Your task to perform on an android device: Open location settings Image 0: 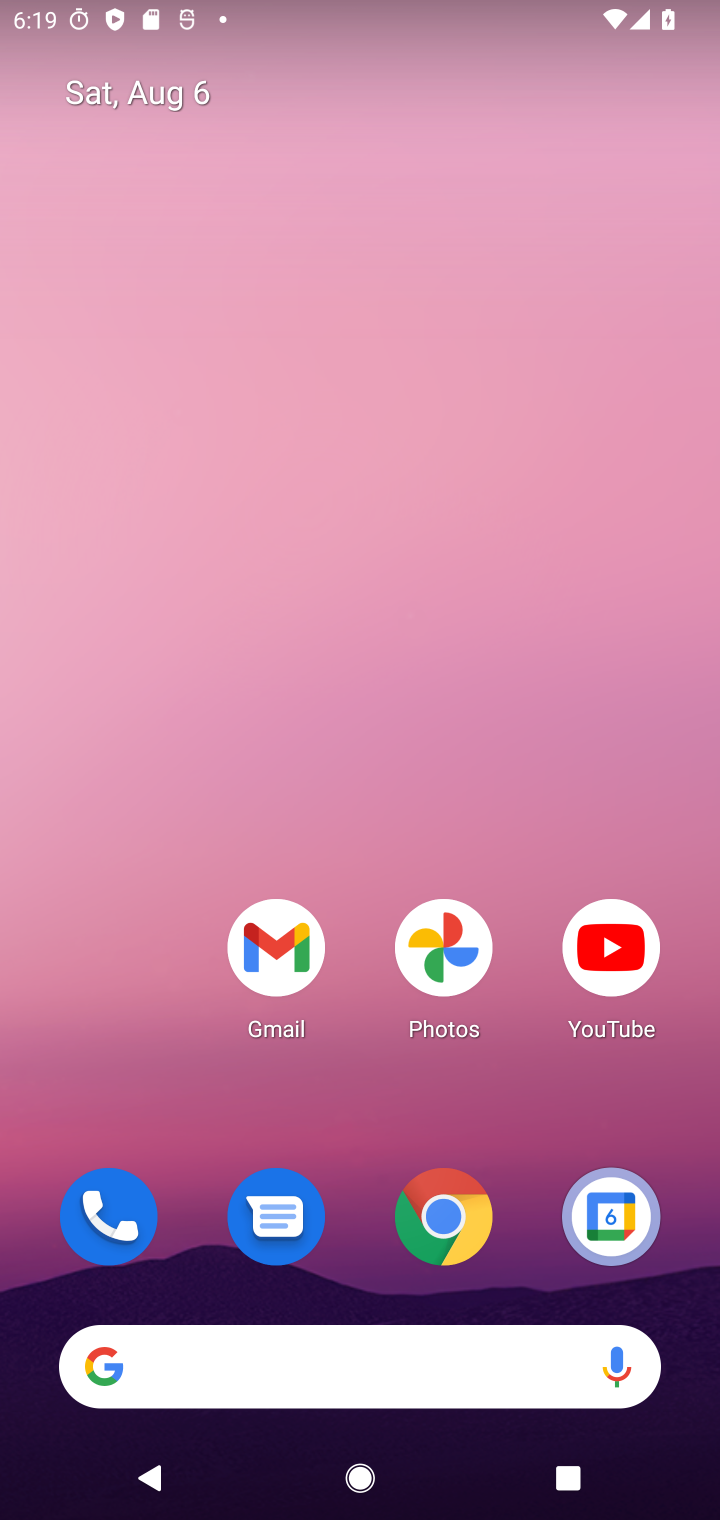
Step 0: drag from (394, 785) to (503, 348)
Your task to perform on an android device: Open location settings Image 1: 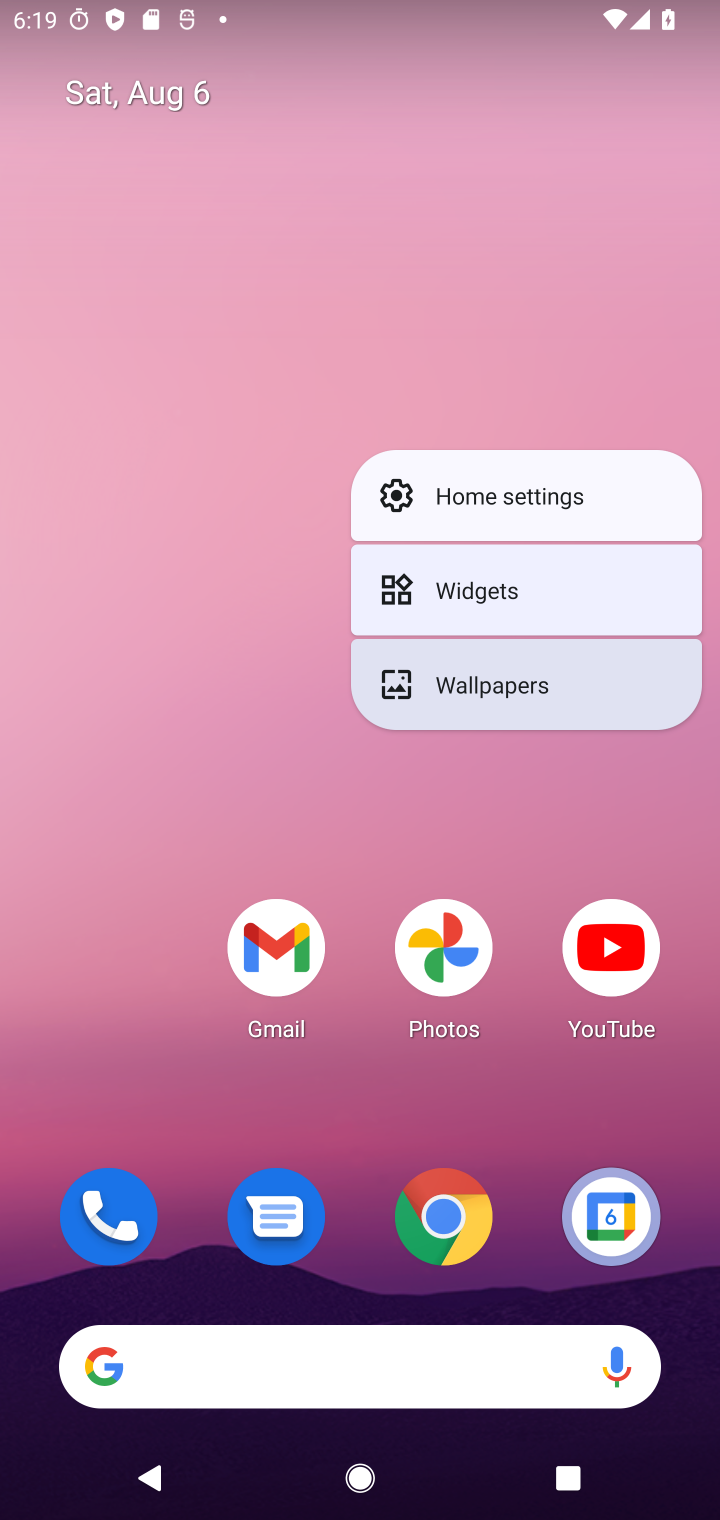
Step 1: click (224, 425)
Your task to perform on an android device: Open location settings Image 2: 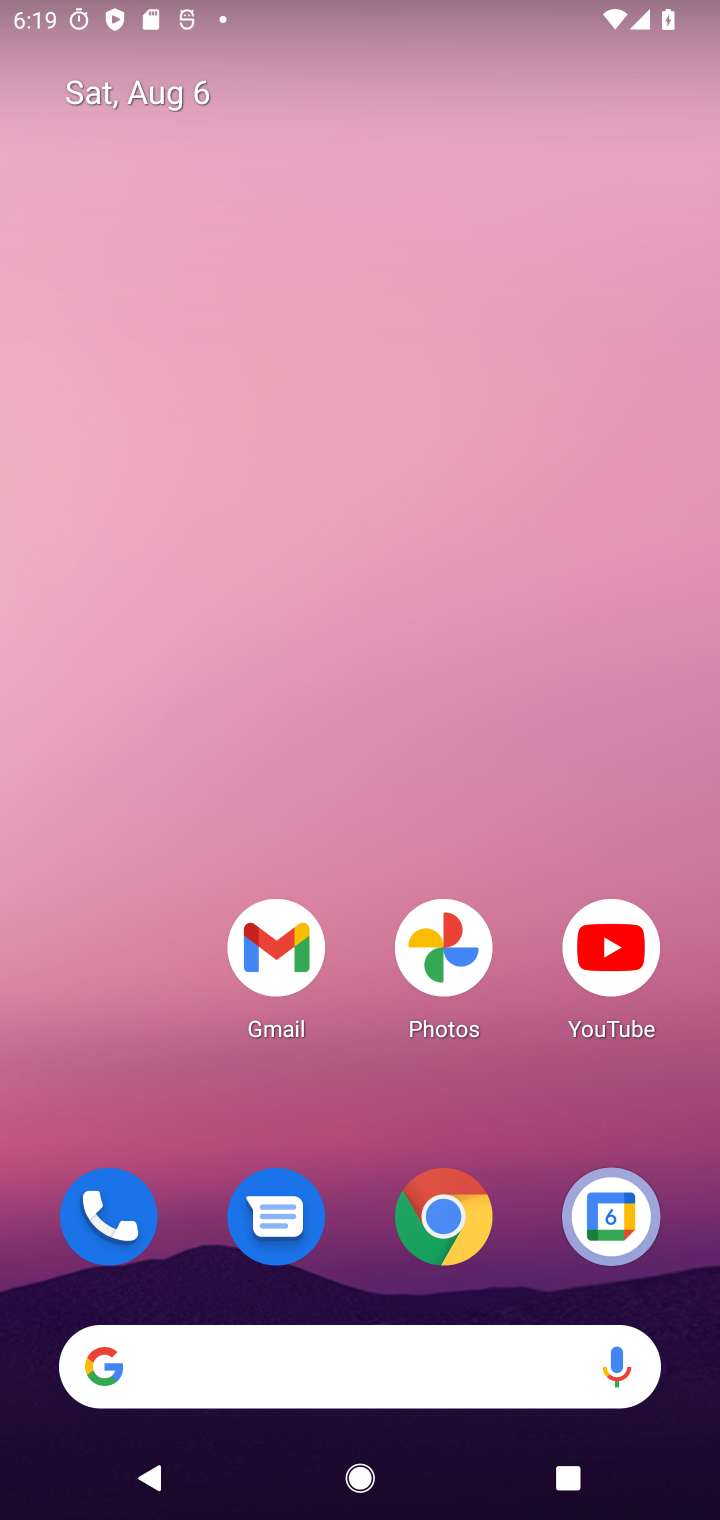
Step 2: click (290, 625)
Your task to perform on an android device: Open location settings Image 3: 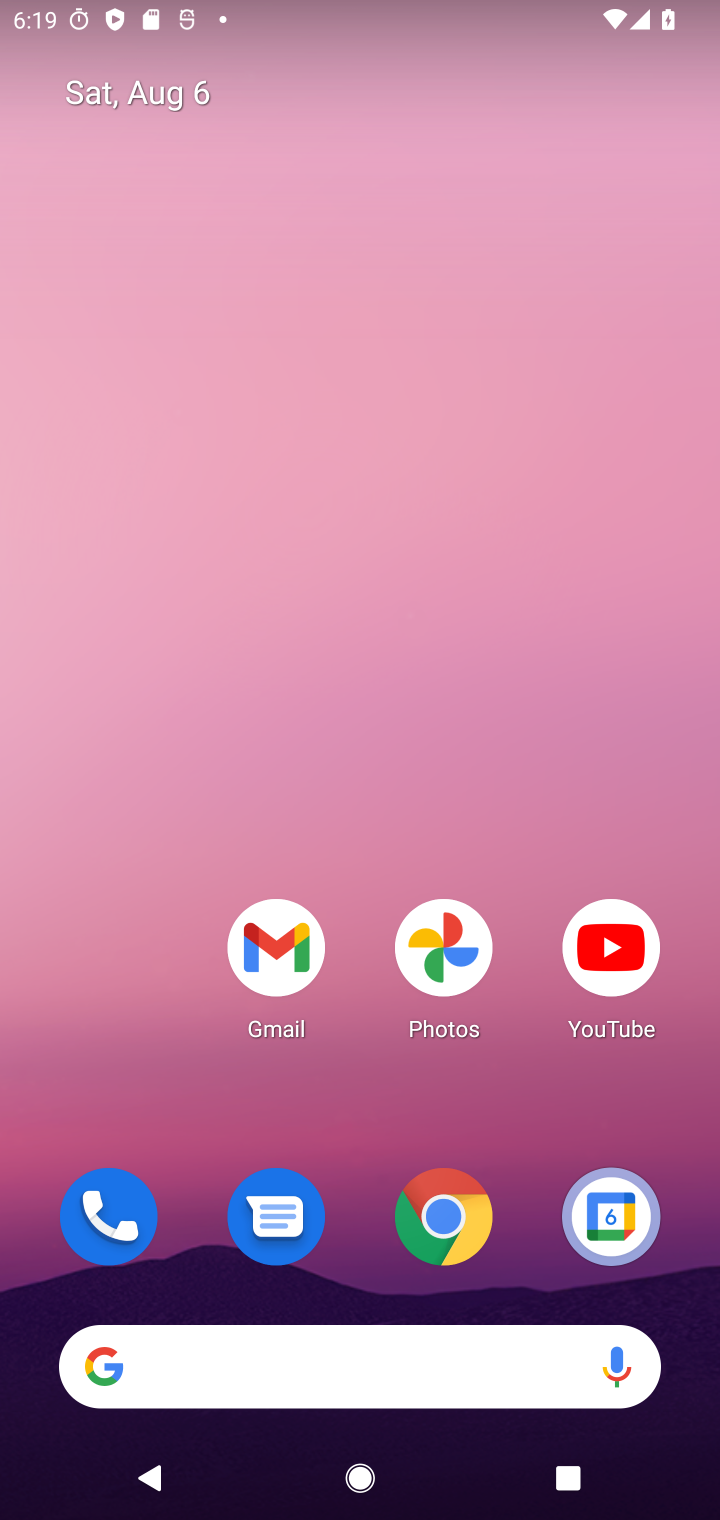
Step 3: drag from (386, 1146) to (520, 439)
Your task to perform on an android device: Open location settings Image 4: 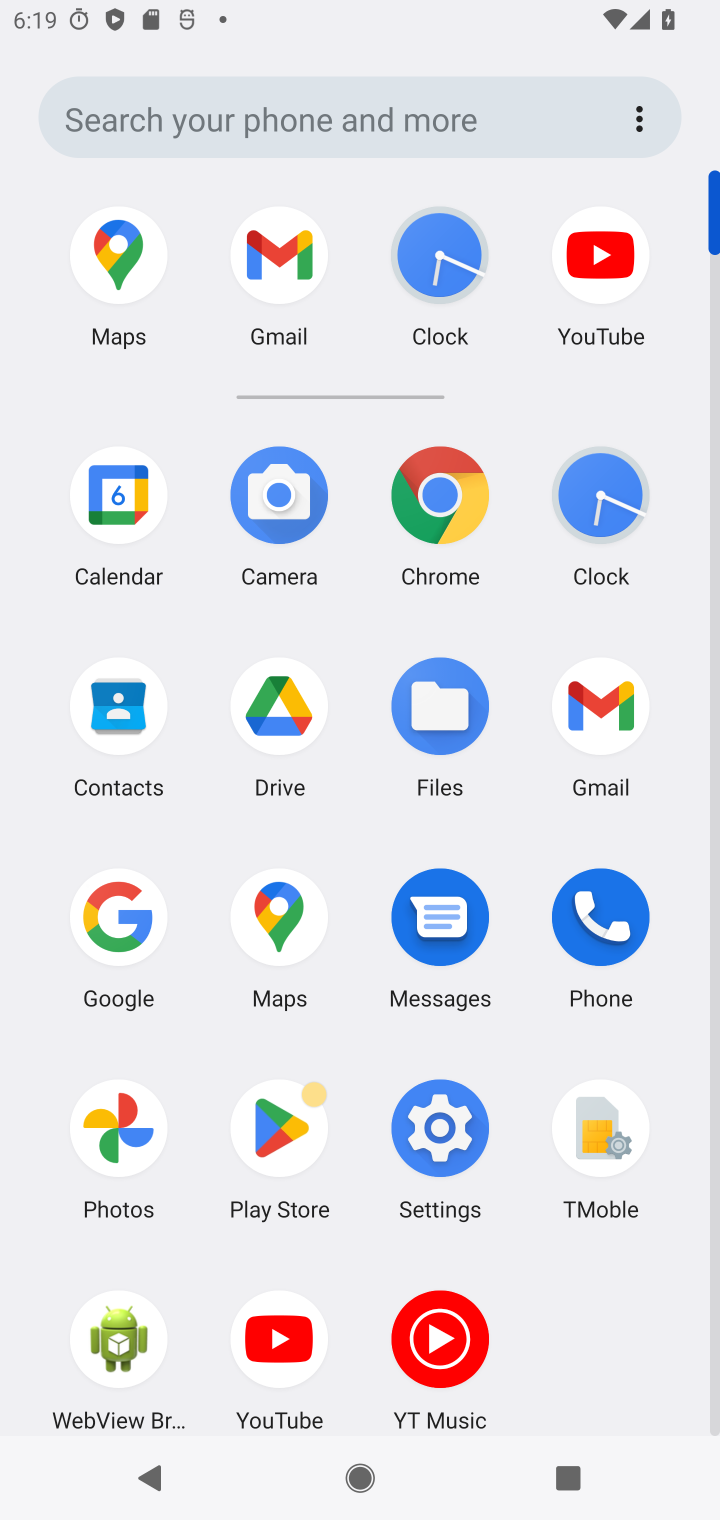
Step 4: click (430, 1100)
Your task to perform on an android device: Open location settings Image 5: 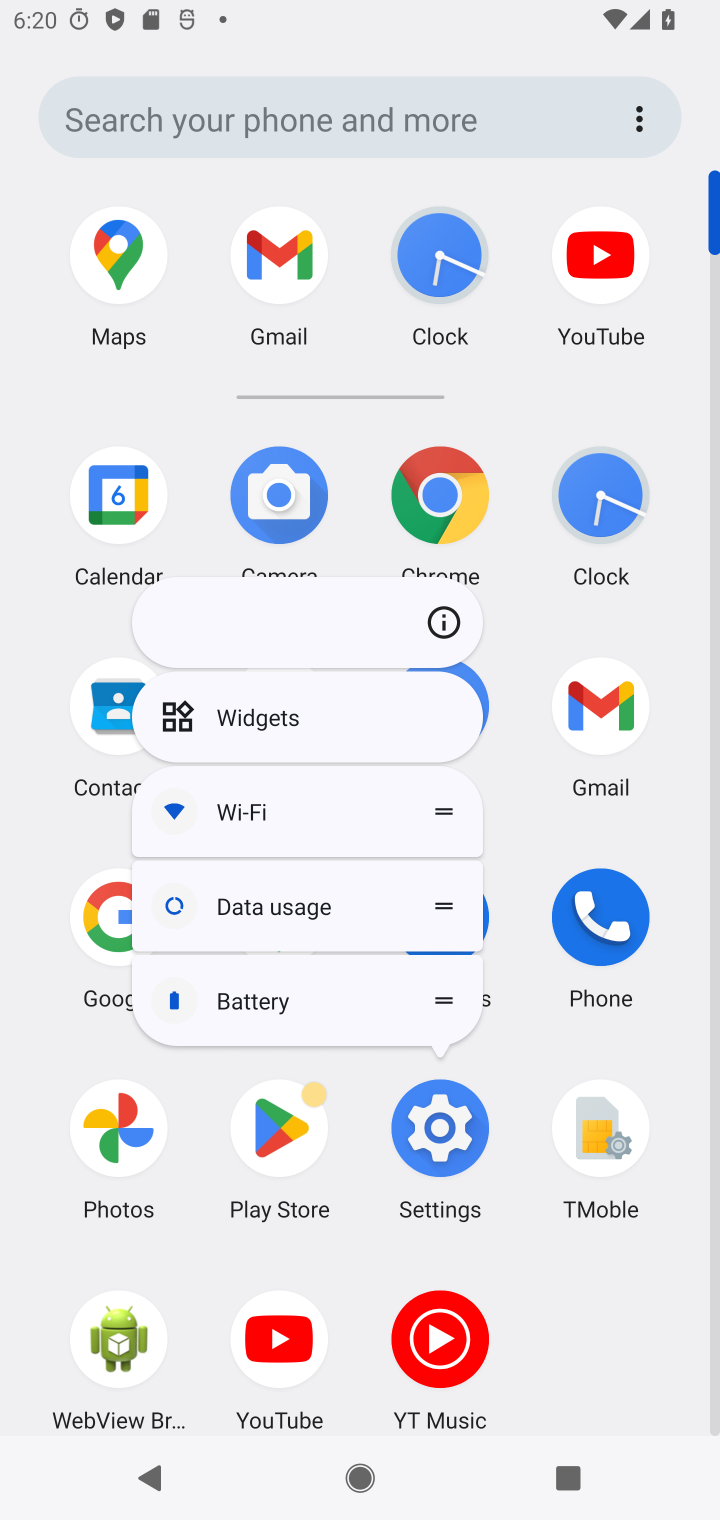
Step 5: click (445, 1129)
Your task to perform on an android device: Open location settings Image 6: 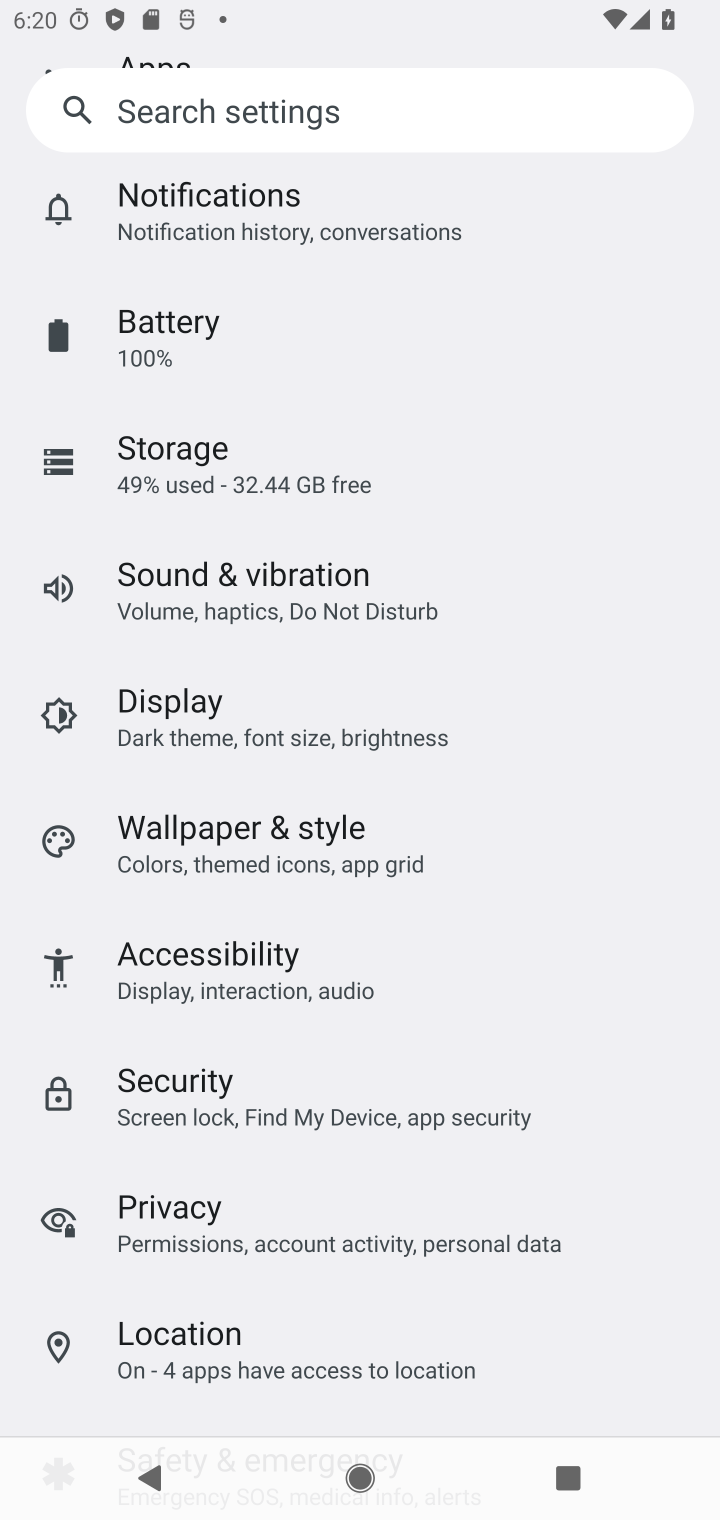
Step 6: click (182, 1367)
Your task to perform on an android device: Open location settings Image 7: 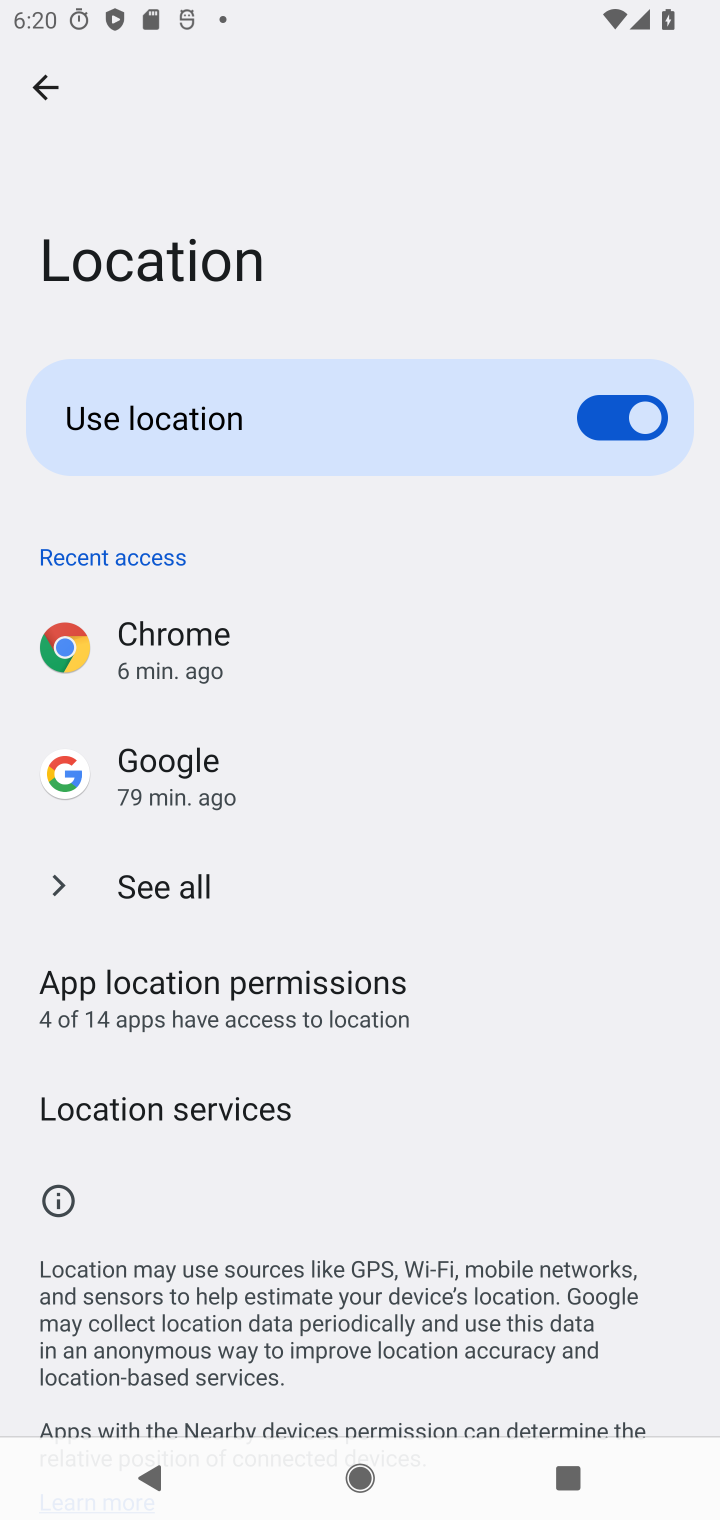
Step 7: task complete